Your task to perform on an android device: toggle sleep mode Image 0: 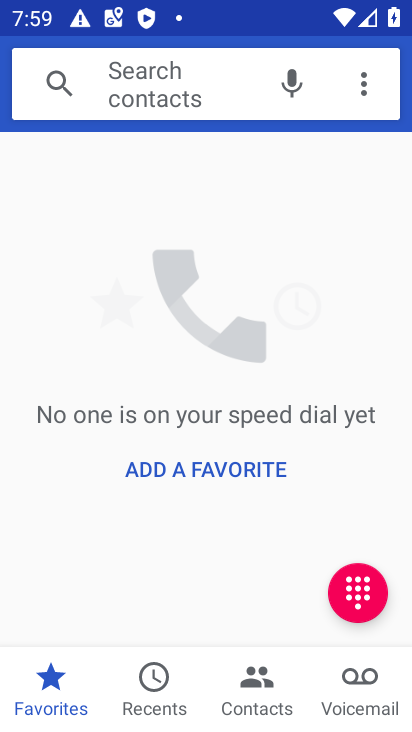
Step 0: press home button
Your task to perform on an android device: toggle sleep mode Image 1: 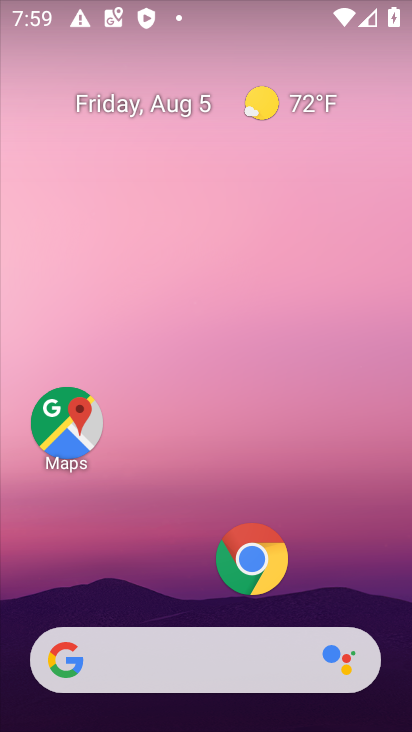
Step 1: drag from (172, 597) to (137, 1)
Your task to perform on an android device: toggle sleep mode Image 2: 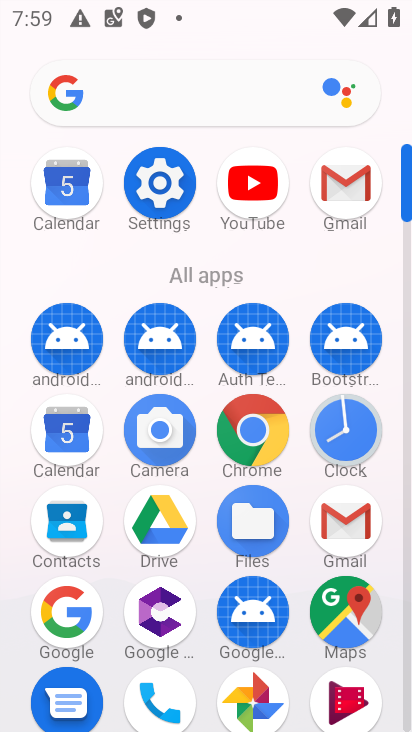
Step 2: click (151, 201)
Your task to perform on an android device: toggle sleep mode Image 3: 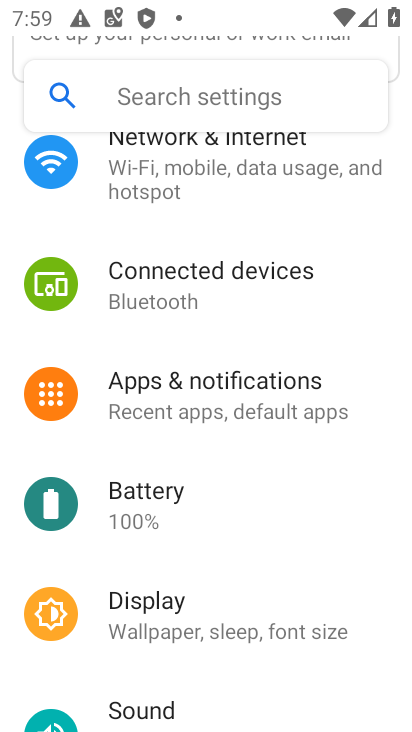
Step 3: click (190, 97)
Your task to perform on an android device: toggle sleep mode Image 4: 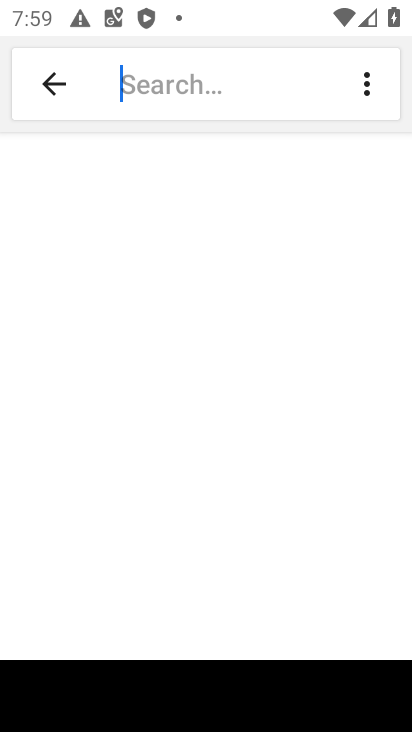
Step 4: type "sleep mode"
Your task to perform on an android device: toggle sleep mode Image 5: 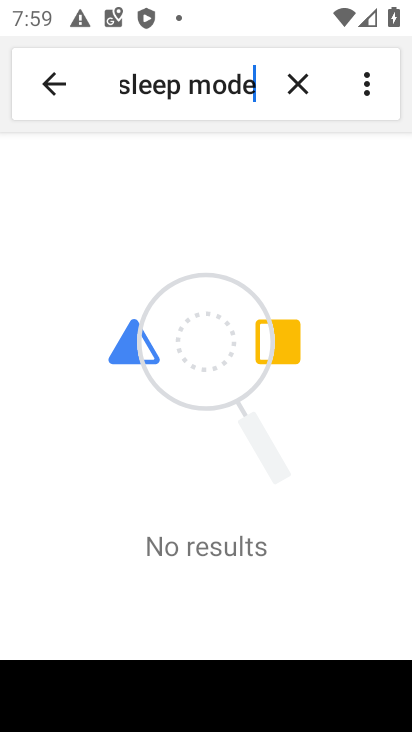
Step 5: task complete